Your task to perform on an android device: change the clock display to show seconds Image 0: 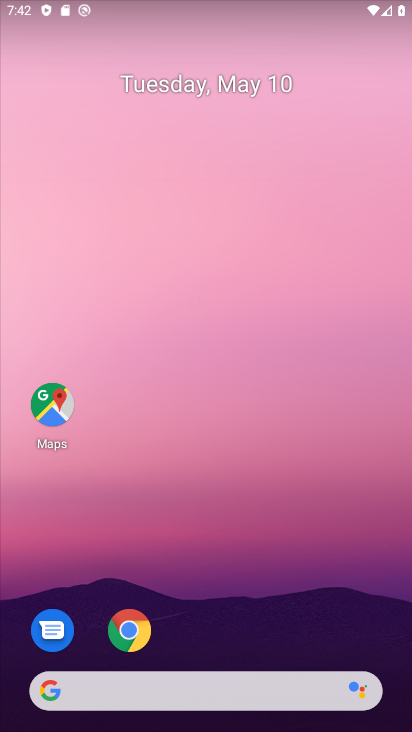
Step 0: drag from (219, 716) to (233, 38)
Your task to perform on an android device: change the clock display to show seconds Image 1: 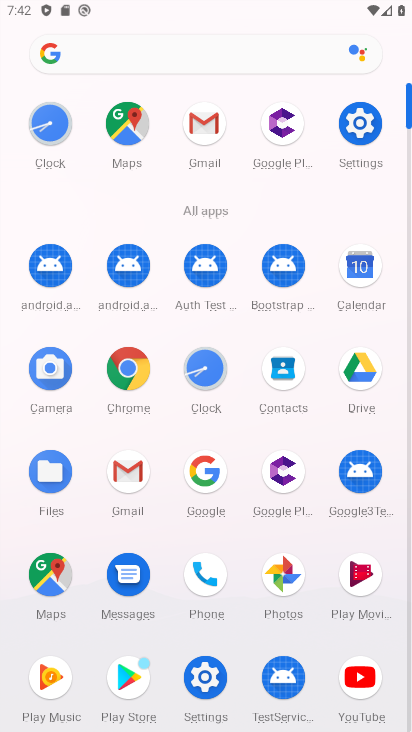
Step 1: click (208, 374)
Your task to perform on an android device: change the clock display to show seconds Image 2: 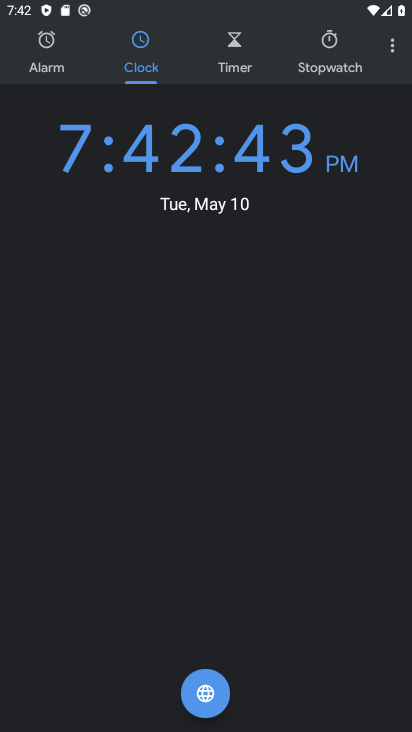
Step 2: click (386, 49)
Your task to perform on an android device: change the clock display to show seconds Image 3: 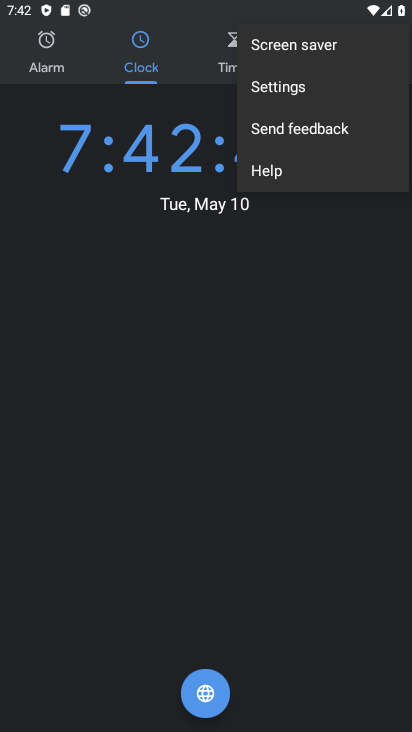
Step 3: click (322, 88)
Your task to perform on an android device: change the clock display to show seconds Image 4: 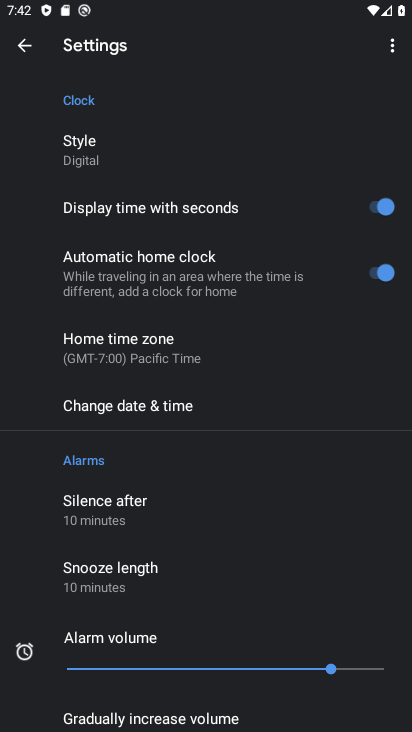
Step 4: task complete